Your task to perform on an android device: add a contact in the contacts app Image 0: 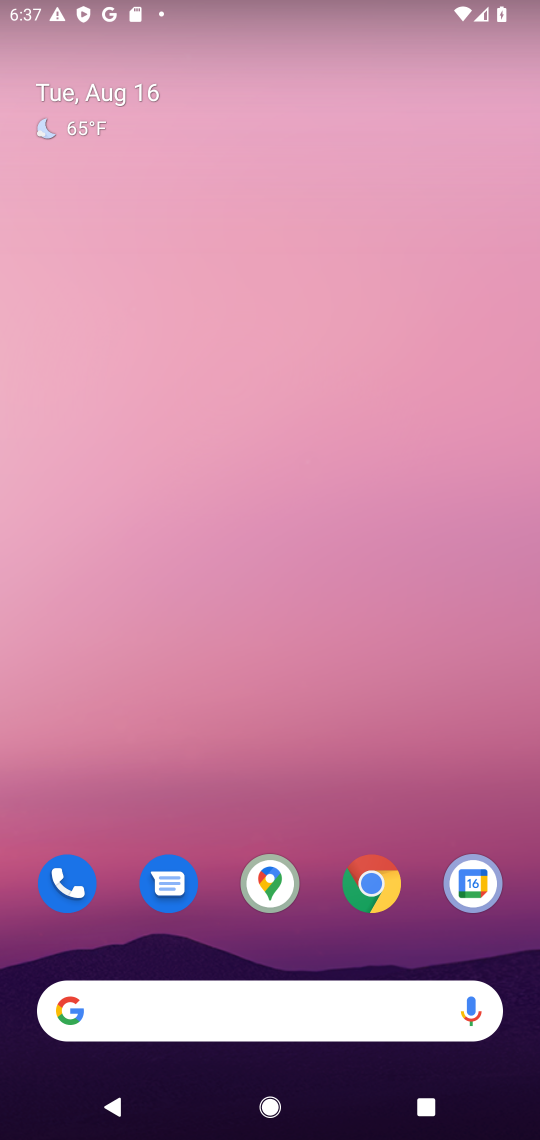
Step 0: drag from (208, 1017) to (537, 88)
Your task to perform on an android device: add a contact in the contacts app Image 1: 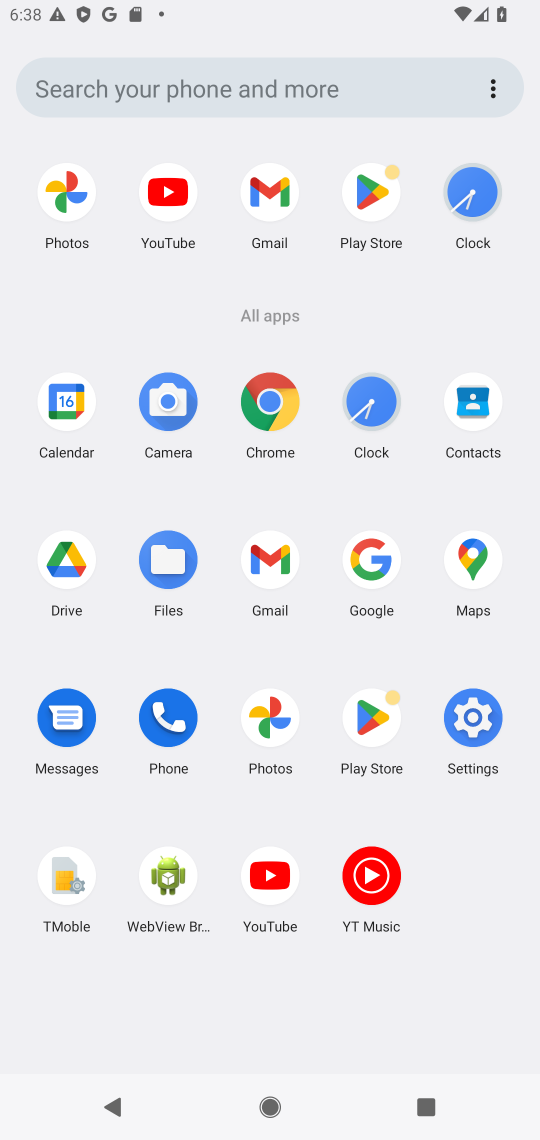
Step 1: click (475, 405)
Your task to perform on an android device: add a contact in the contacts app Image 2: 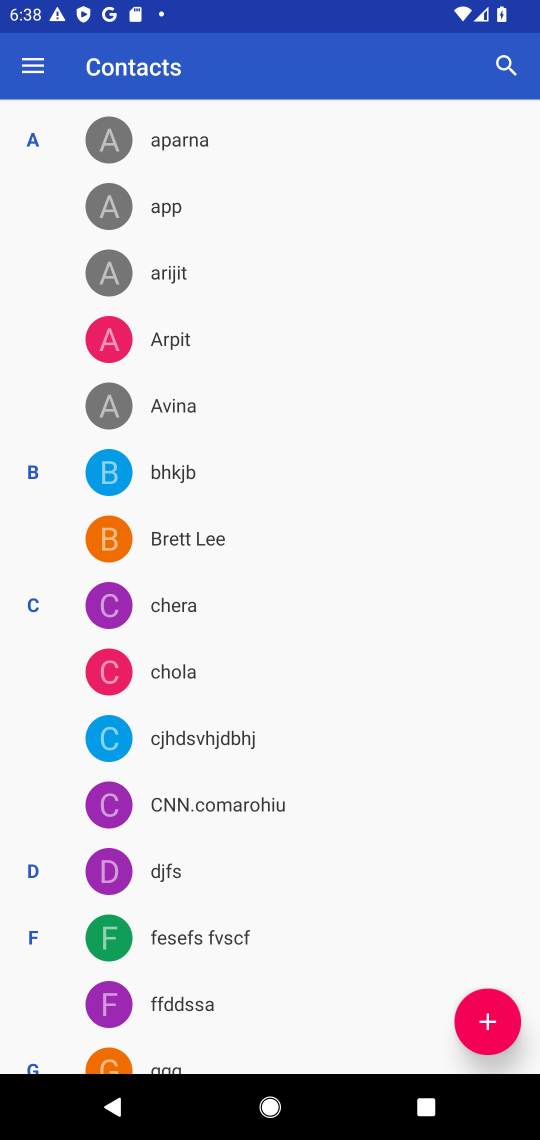
Step 2: click (488, 1025)
Your task to perform on an android device: add a contact in the contacts app Image 3: 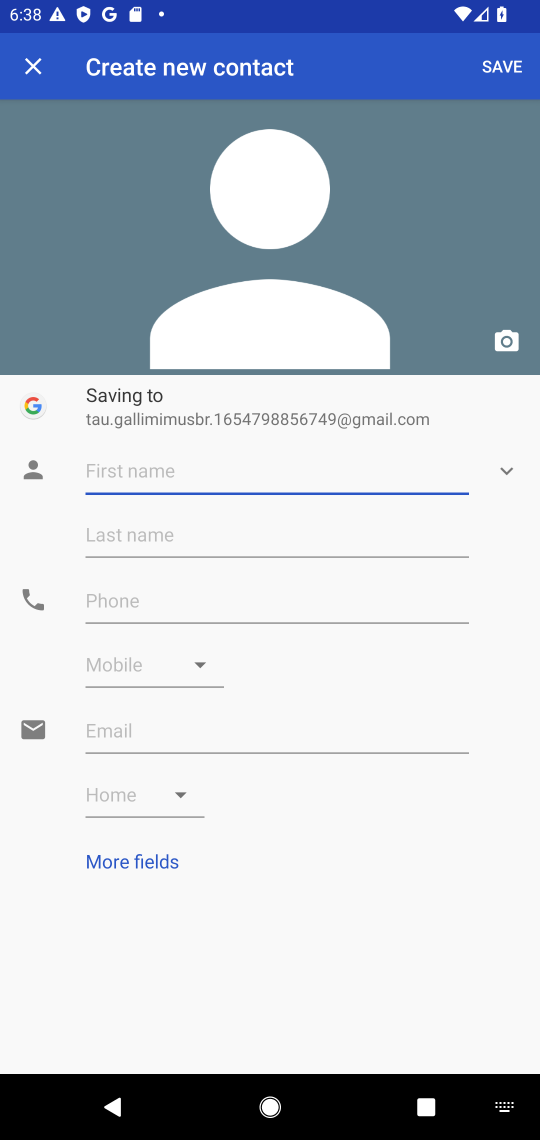
Step 3: type "Varsha"
Your task to perform on an android device: add a contact in the contacts app Image 4: 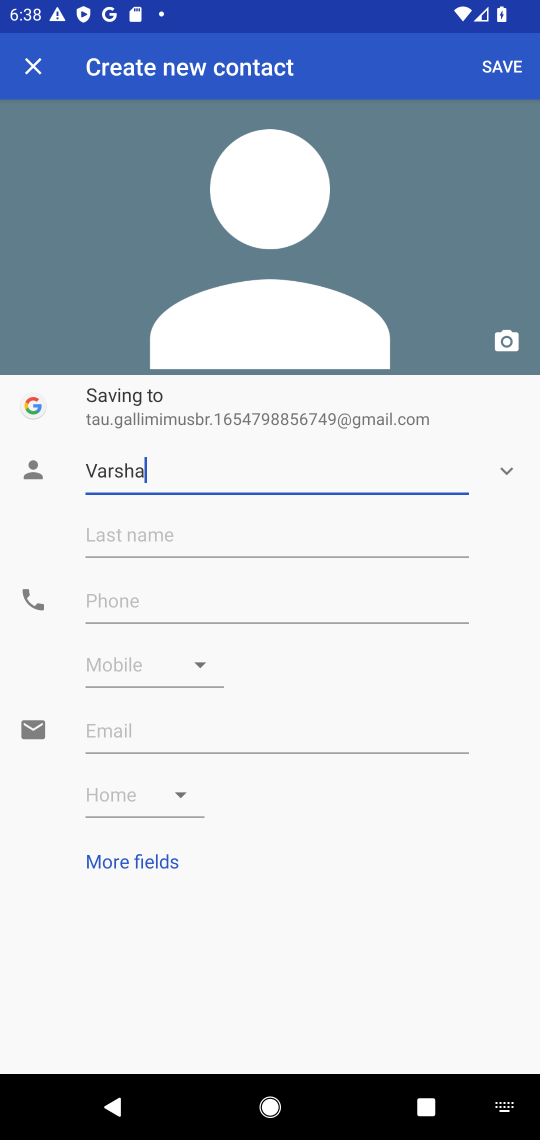
Step 4: click (313, 530)
Your task to perform on an android device: add a contact in the contacts app Image 5: 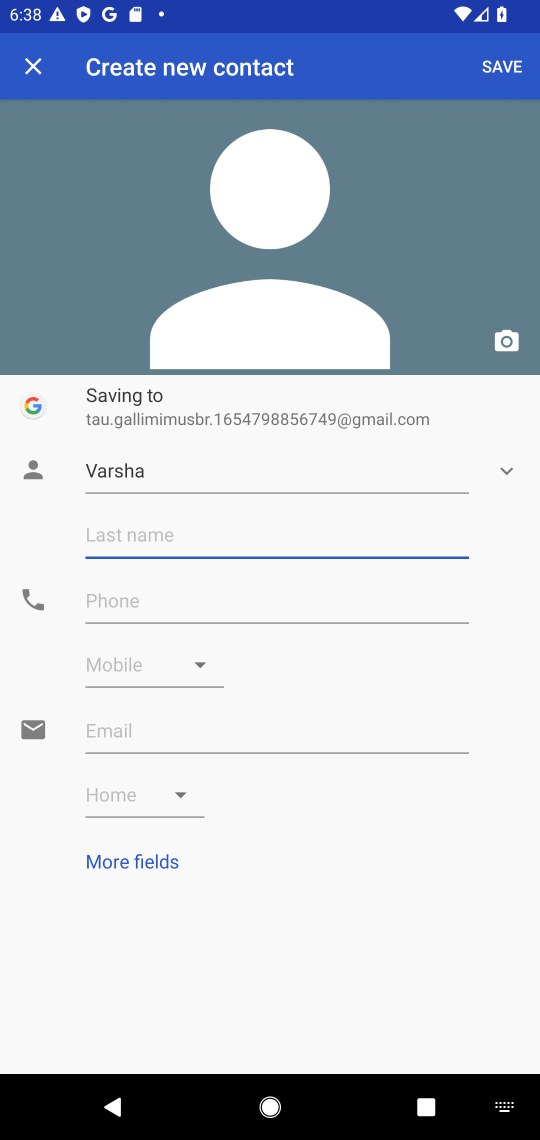
Step 5: type "Raikwar"
Your task to perform on an android device: add a contact in the contacts app Image 6: 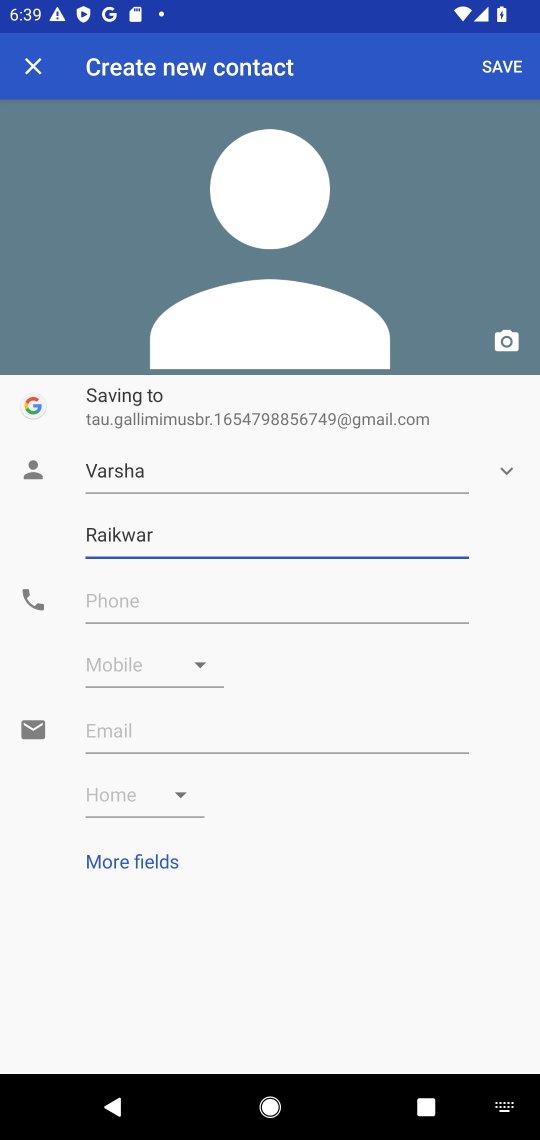
Step 6: click (203, 587)
Your task to perform on an android device: add a contact in the contacts app Image 7: 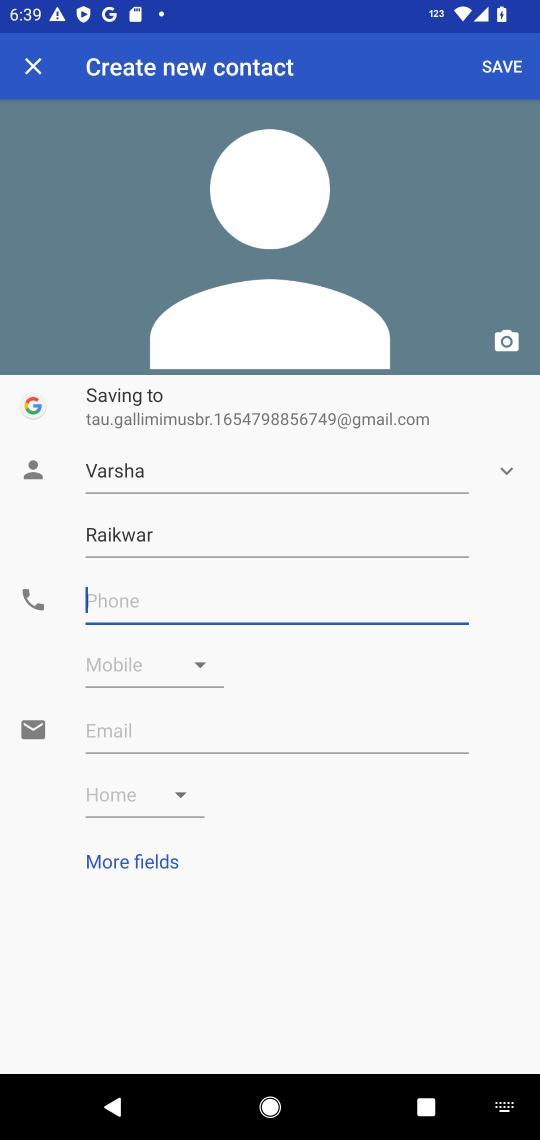
Step 7: type "0987654321"
Your task to perform on an android device: add a contact in the contacts app Image 8: 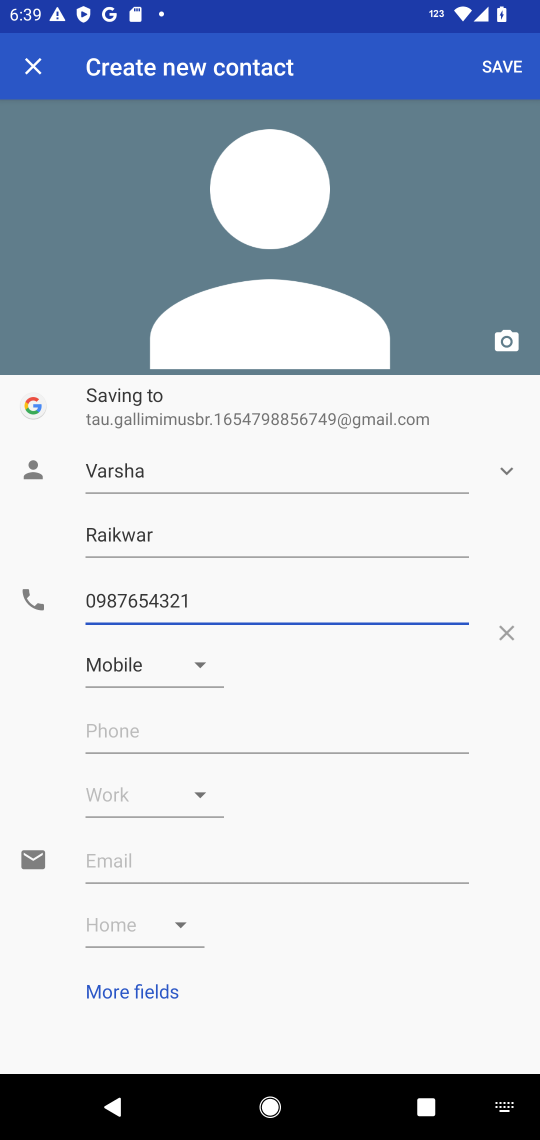
Step 8: click (508, 71)
Your task to perform on an android device: add a contact in the contacts app Image 9: 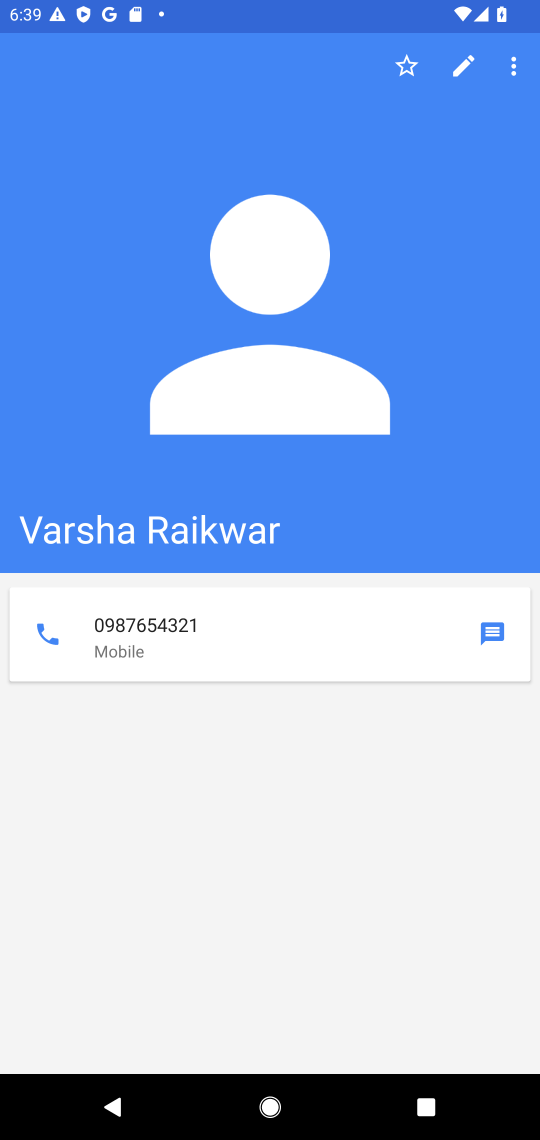
Step 9: task complete